Your task to perform on an android device: change alarm snooze length Image 0: 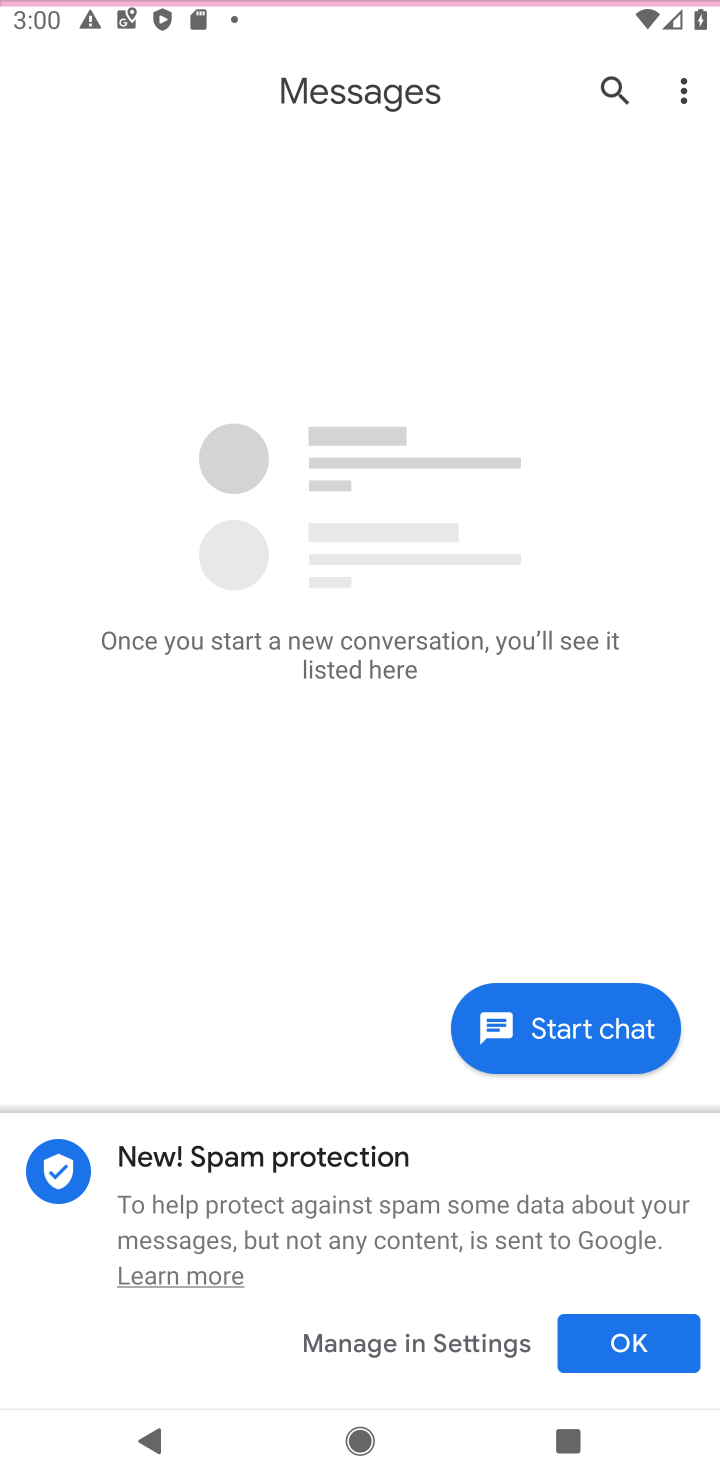
Step 0: press home button
Your task to perform on an android device: change alarm snooze length Image 1: 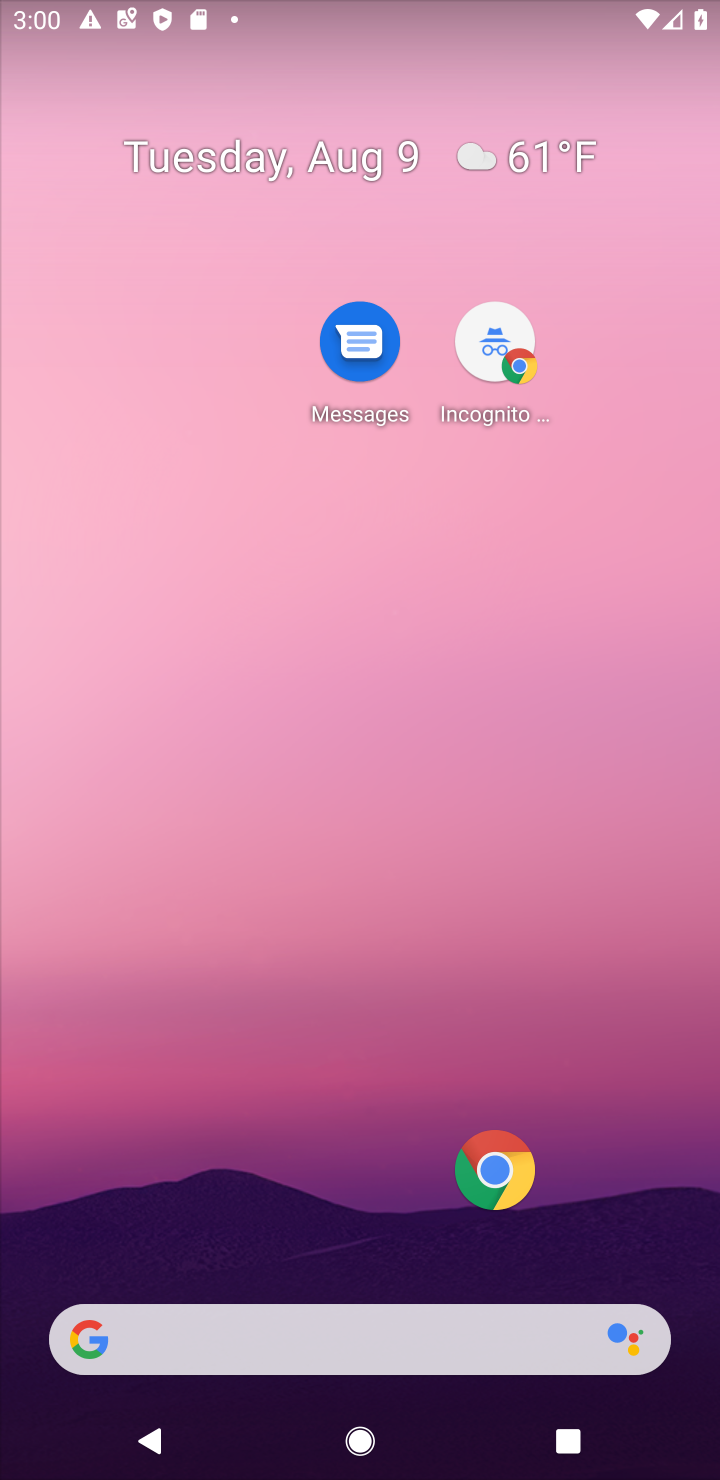
Step 1: drag from (273, 1192) to (255, 169)
Your task to perform on an android device: change alarm snooze length Image 2: 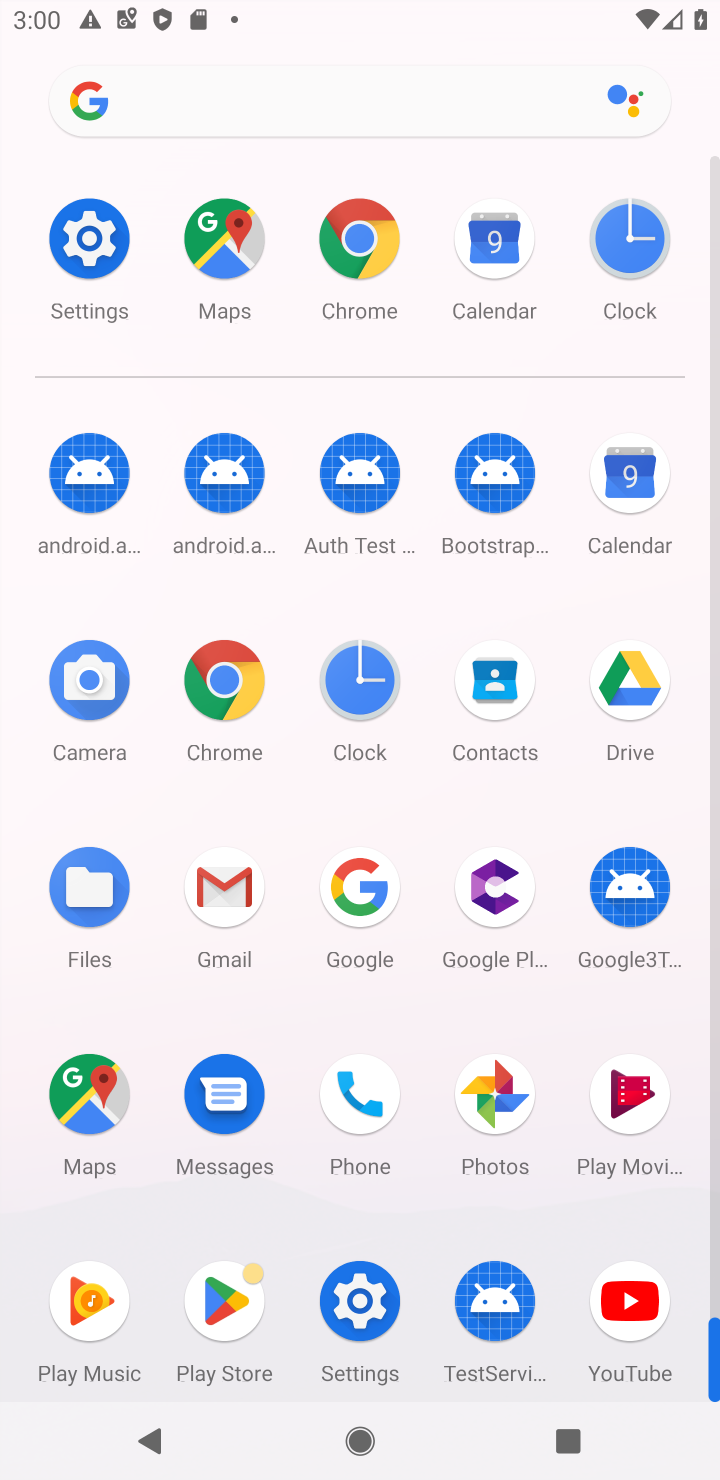
Step 2: click (328, 674)
Your task to perform on an android device: change alarm snooze length Image 3: 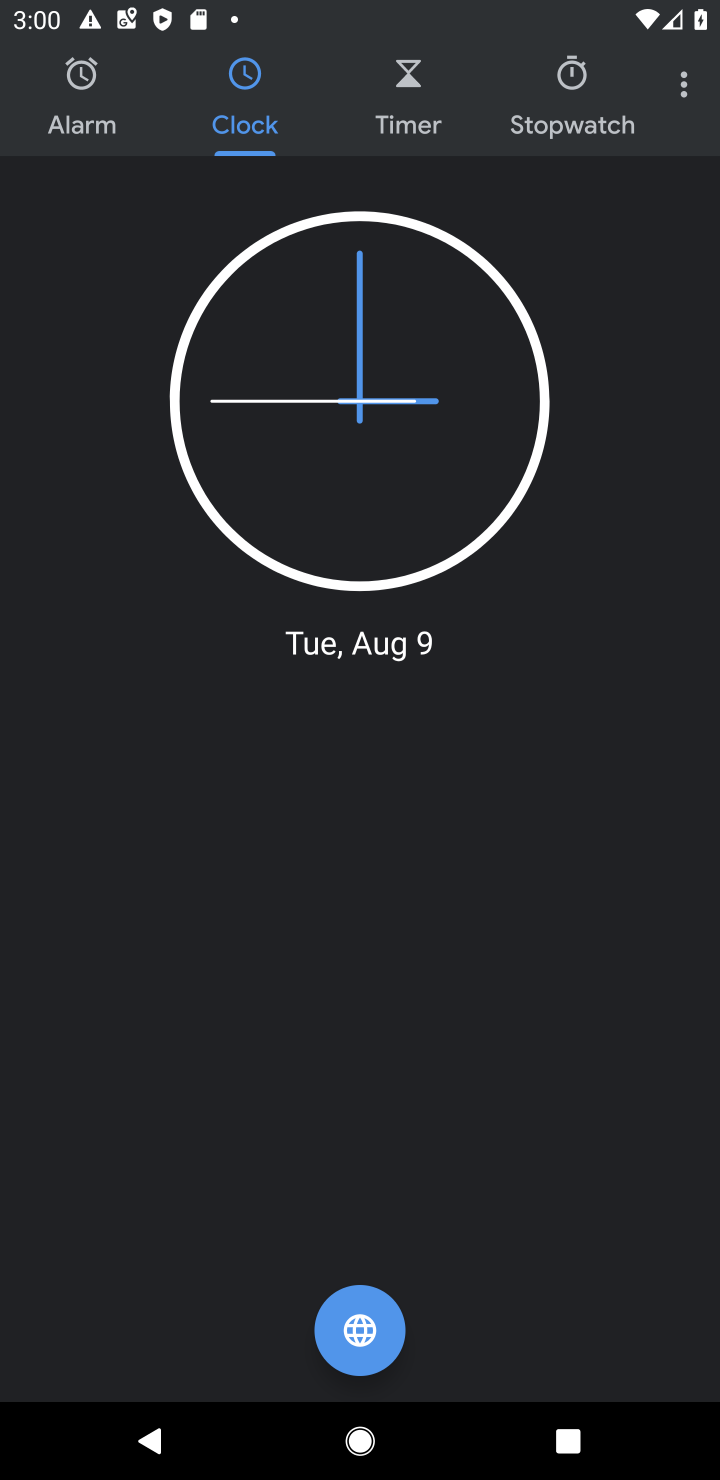
Step 3: click (674, 85)
Your task to perform on an android device: change alarm snooze length Image 4: 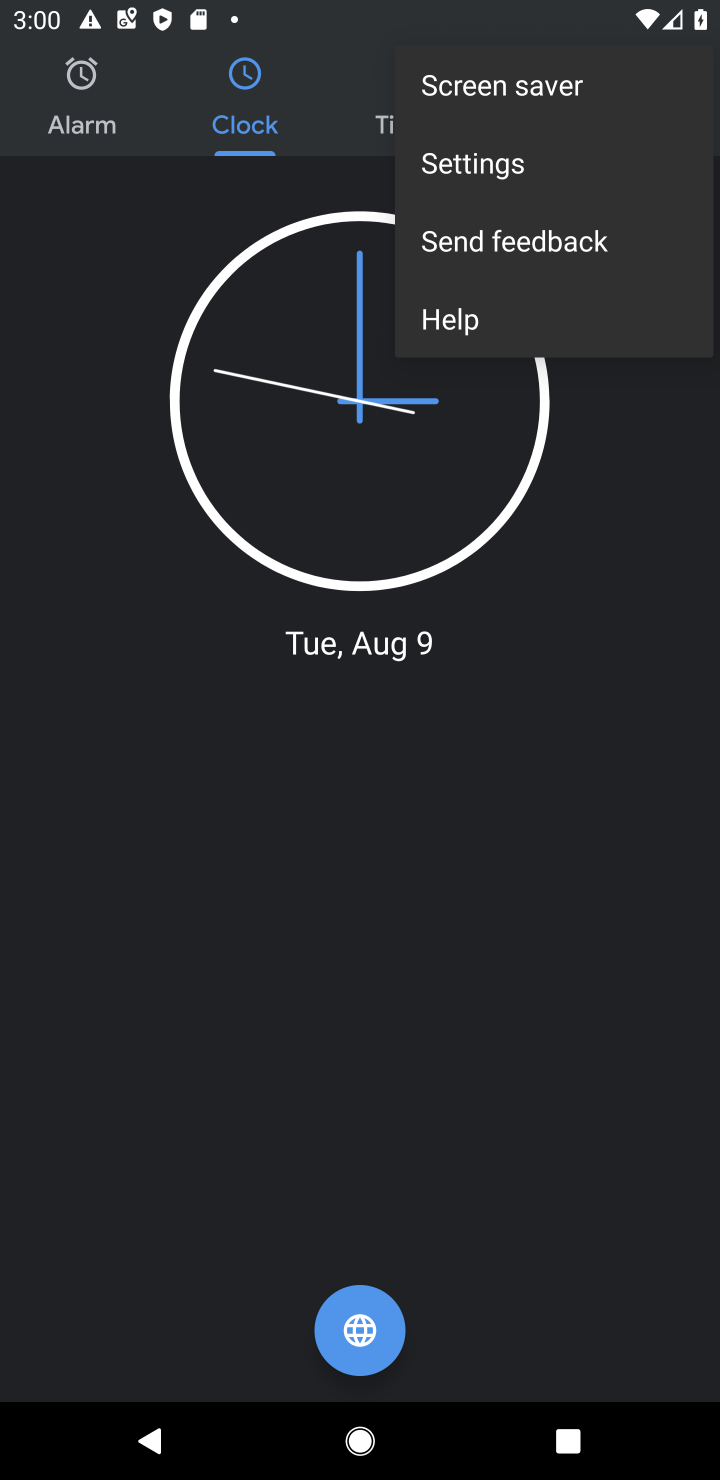
Step 4: click (500, 184)
Your task to perform on an android device: change alarm snooze length Image 5: 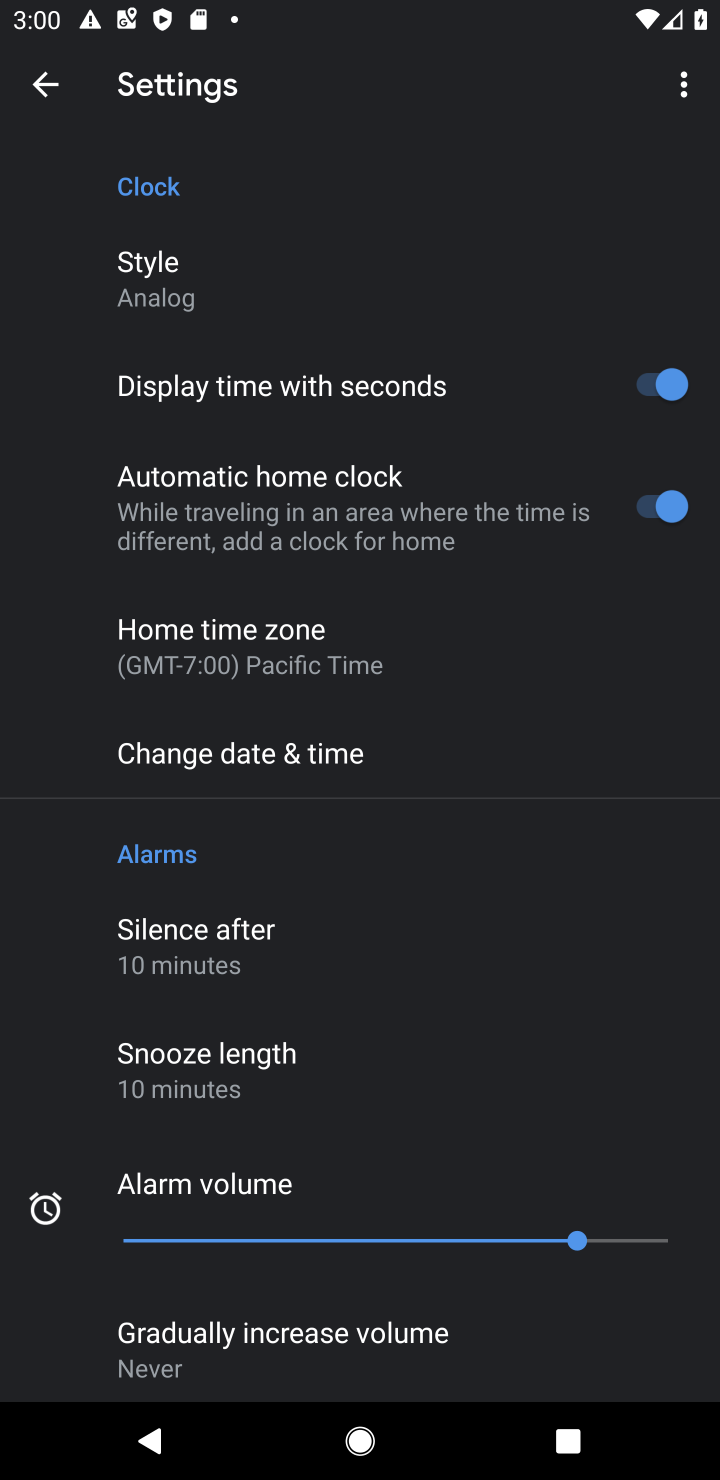
Step 5: click (267, 1067)
Your task to perform on an android device: change alarm snooze length Image 6: 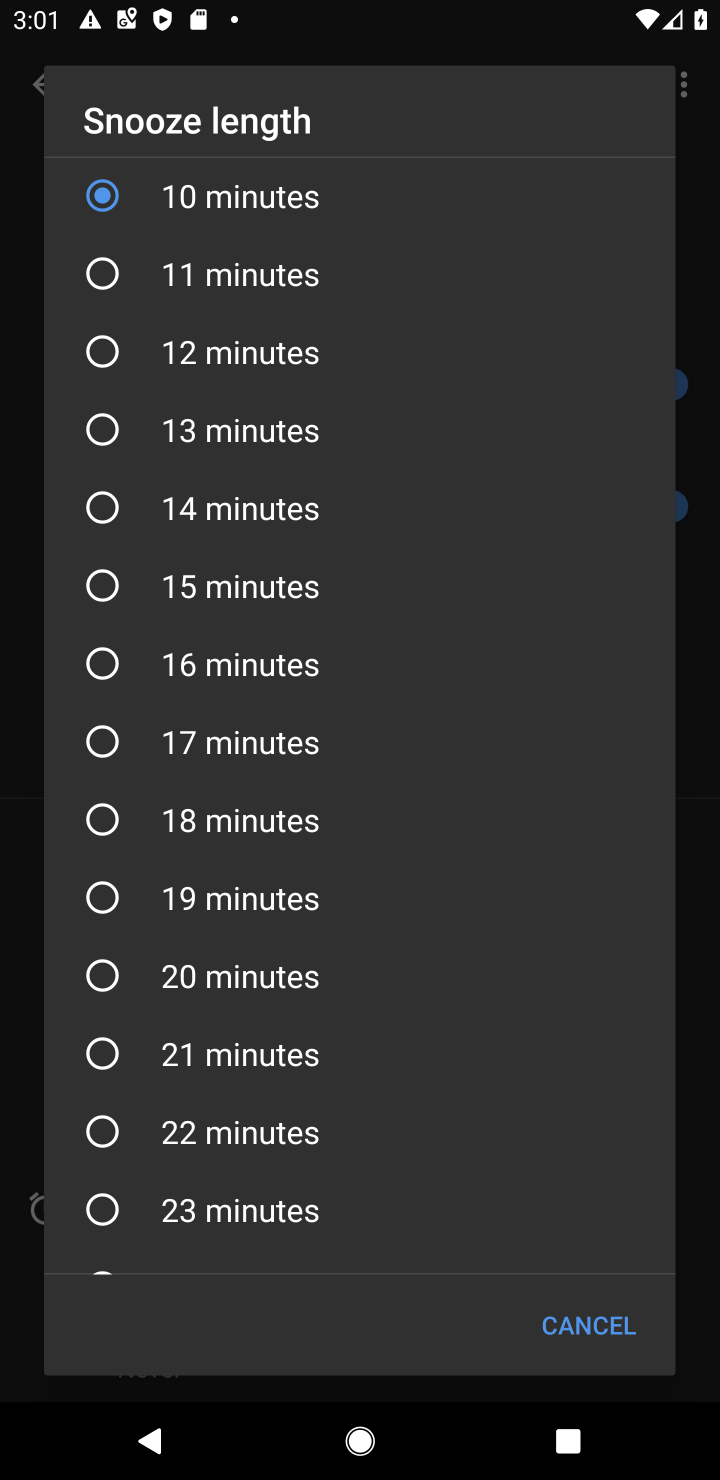
Step 6: click (202, 675)
Your task to perform on an android device: change alarm snooze length Image 7: 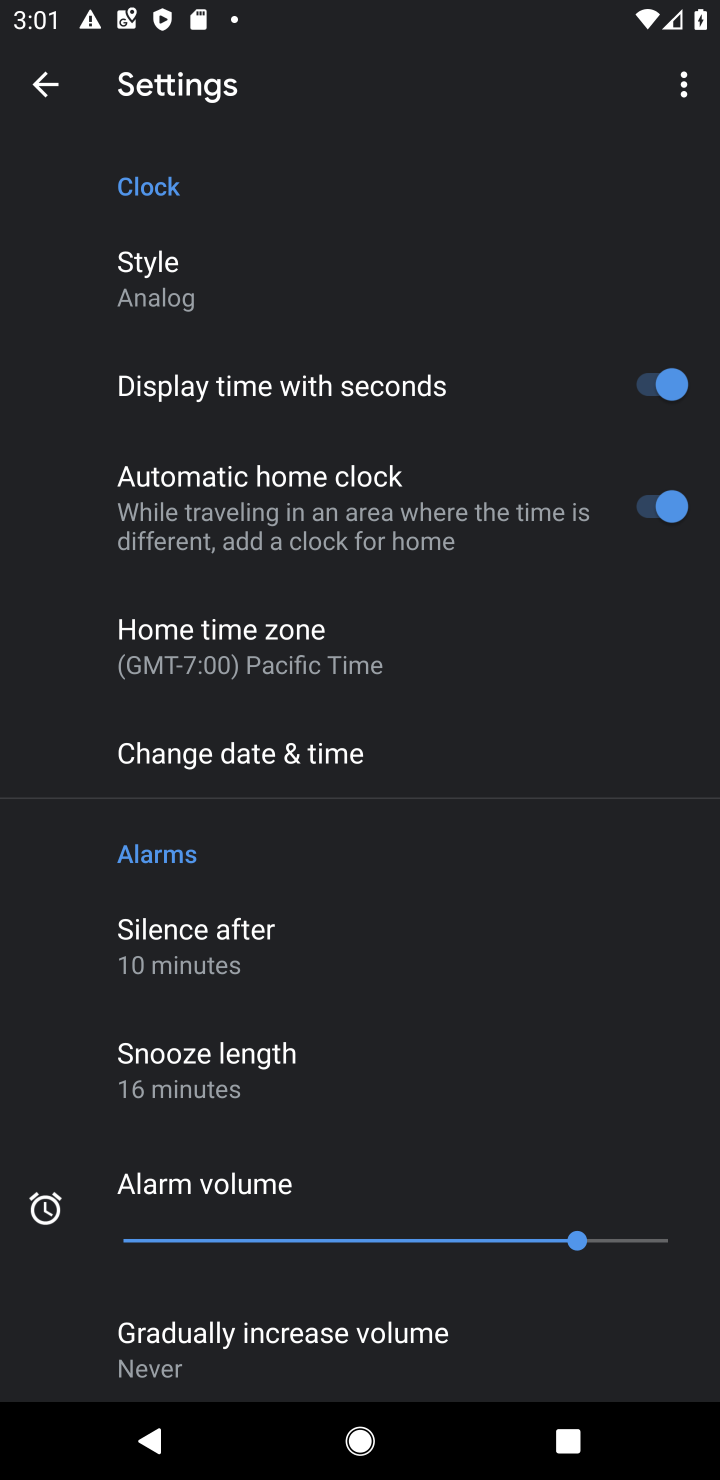
Step 7: task complete